Your task to perform on an android device: What's the weather going to be this weekend? Image 0: 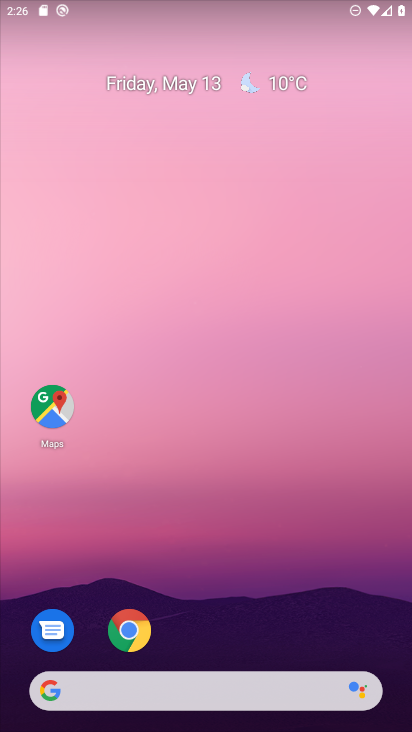
Step 0: click (283, 78)
Your task to perform on an android device: What's the weather going to be this weekend? Image 1: 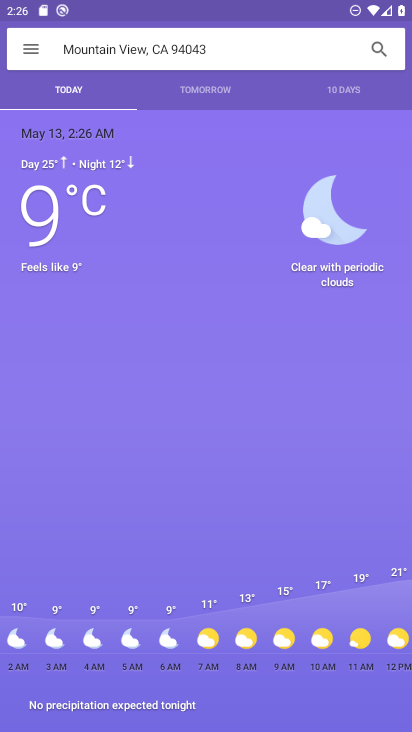
Step 1: drag from (199, 608) to (229, 293)
Your task to perform on an android device: What's the weather going to be this weekend? Image 2: 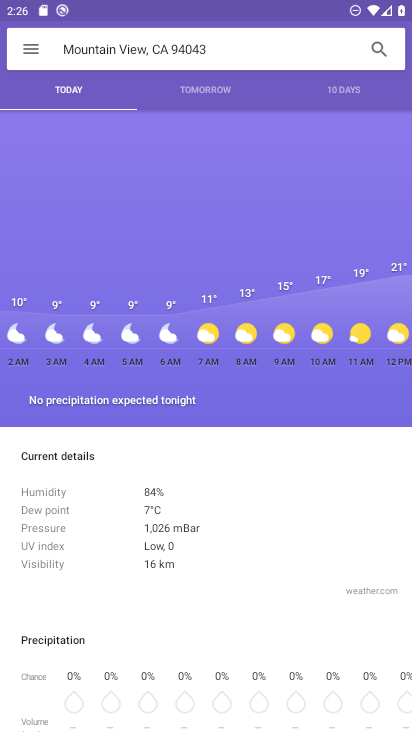
Step 2: click (347, 96)
Your task to perform on an android device: What's the weather going to be this weekend? Image 3: 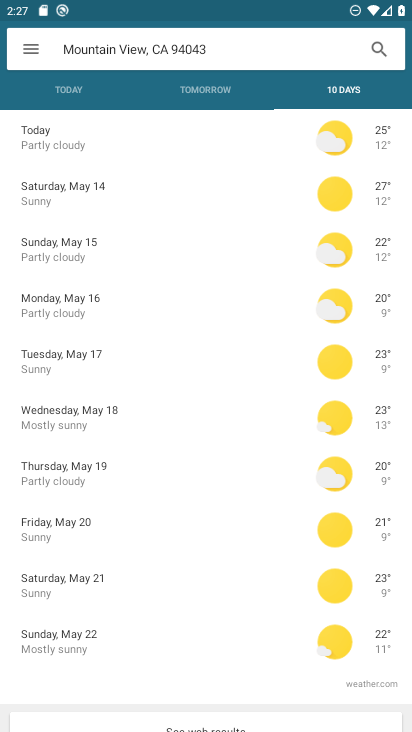
Step 3: task complete